Your task to perform on an android device: Open Amazon Image 0: 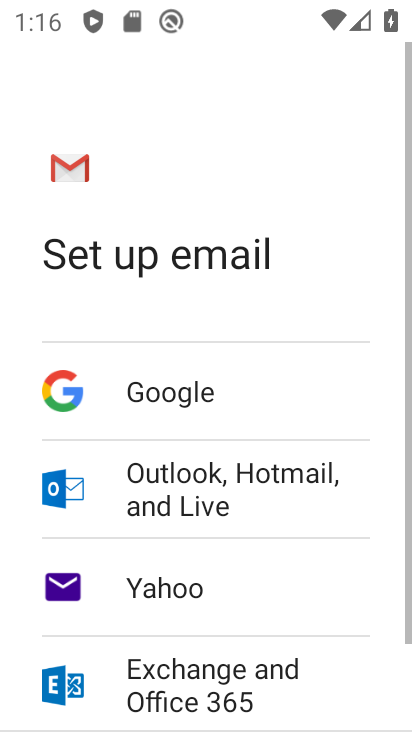
Step 0: drag from (244, 617) to (319, 307)
Your task to perform on an android device: Open Amazon Image 1: 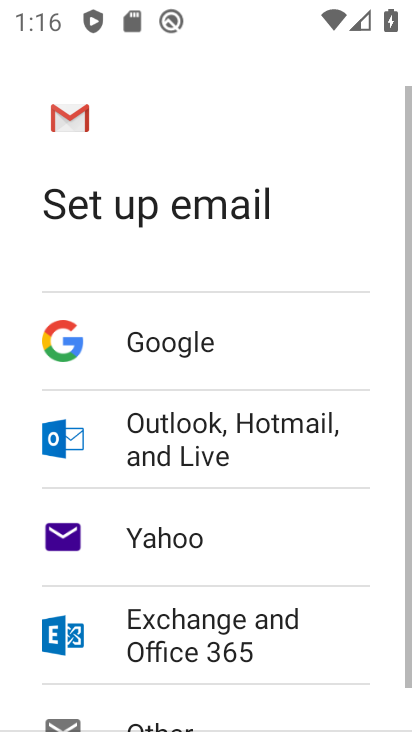
Step 1: press home button
Your task to perform on an android device: Open Amazon Image 2: 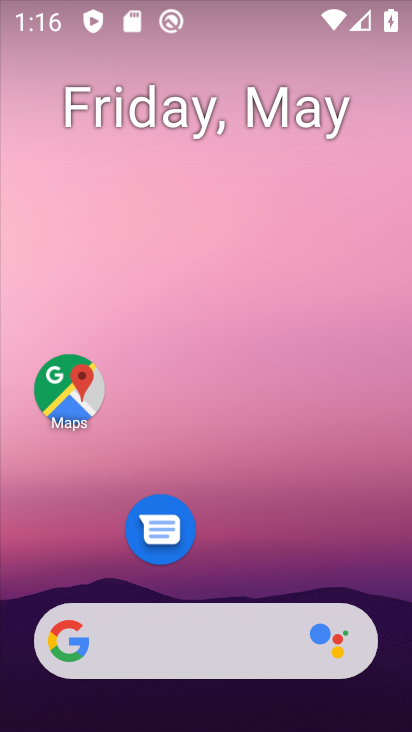
Step 2: drag from (200, 584) to (228, 276)
Your task to perform on an android device: Open Amazon Image 3: 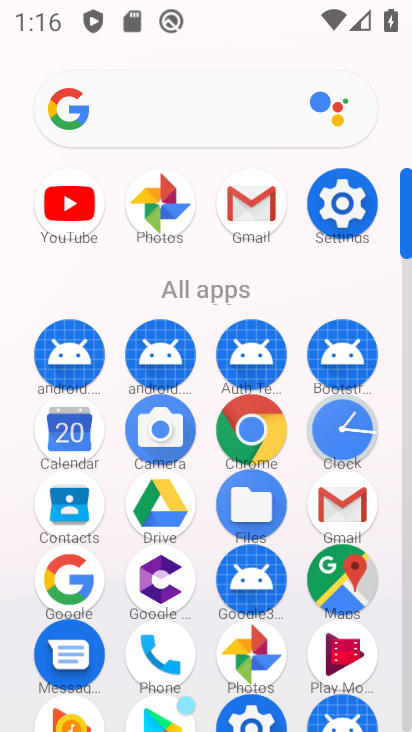
Step 3: click (175, 85)
Your task to perform on an android device: Open Amazon Image 4: 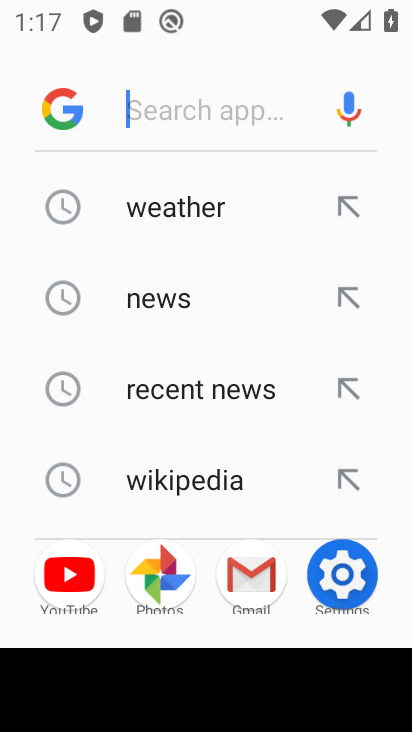
Step 4: type "amazon "
Your task to perform on an android device: Open Amazon Image 5: 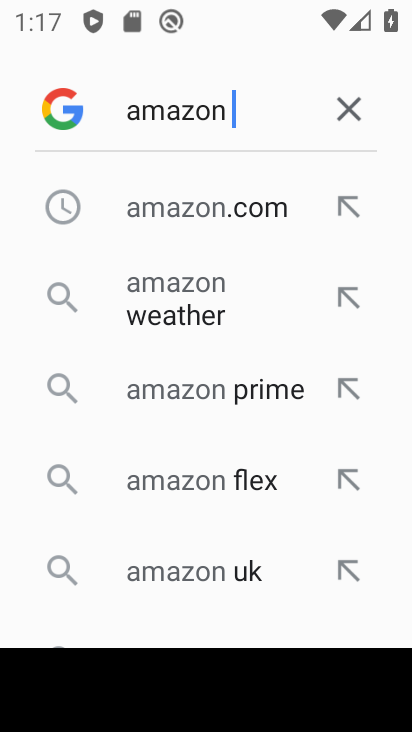
Step 5: click (172, 178)
Your task to perform on an android device: Open Amazon Image 6: 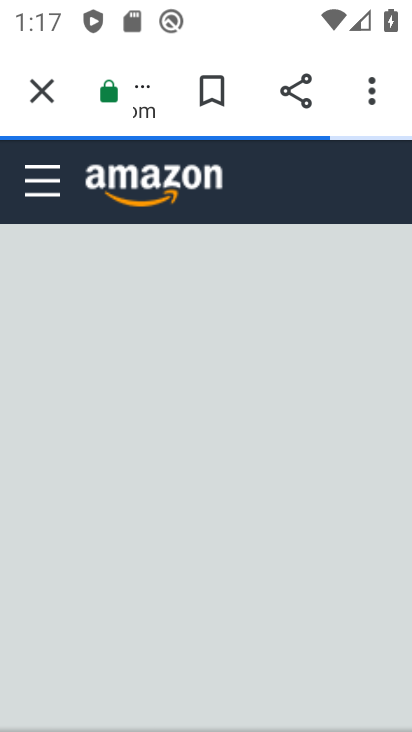
Step 6: task complete